Your task to perform on an android device: turn on data saver in the chrome app Image 0: 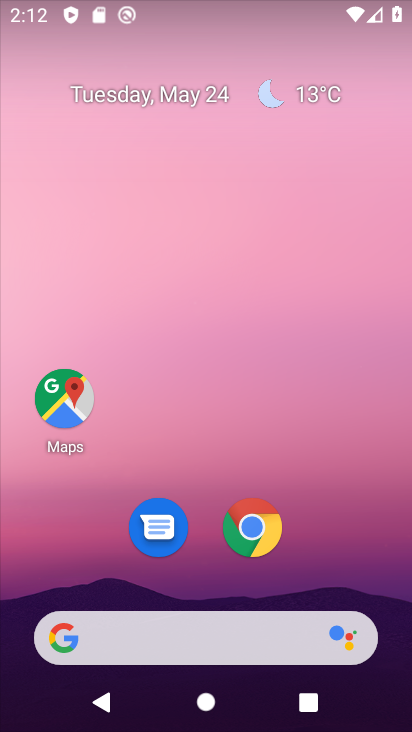
Step 0: click (246, 536)
Your task to perform on an android device: turn on data saver in the chrome app Image 1: 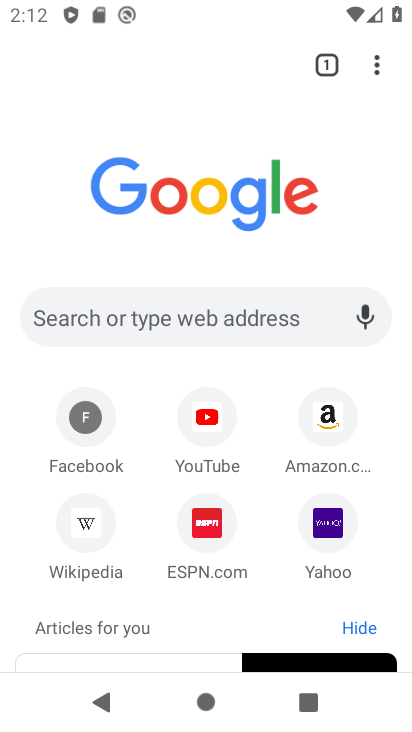
Step 1: click (369, 59)
Your task to perform on an android device: turn on data saver in the chrome app Image 2: 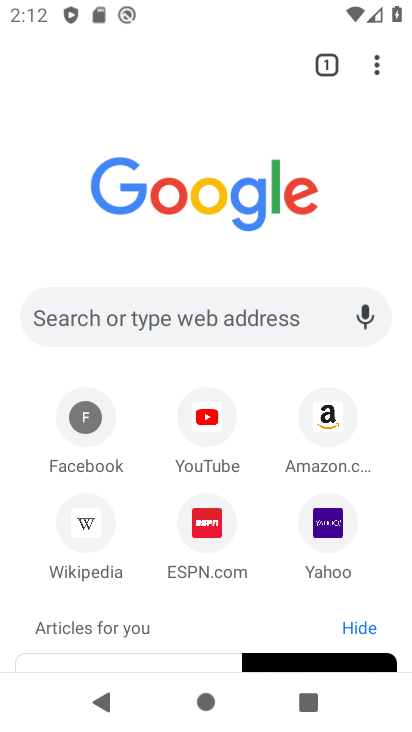
Step 2: click (369, 59)
Your task to perform on an android device: turn on data saver in the chrome app Image 3: 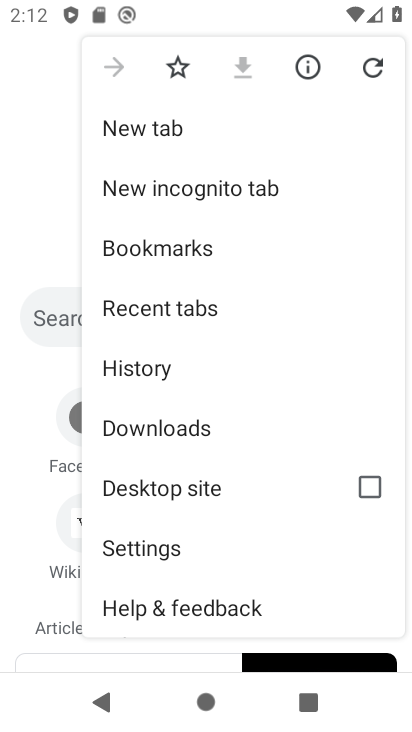
Step 3: click (176, 549)
Your task to perform on an android device: turn on data saver in the chrome app Image 4: 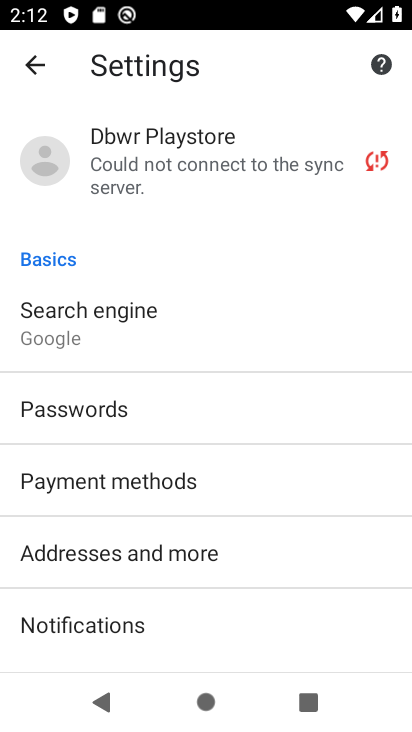
Step 4: drag from (158, 620) to (238, 361)
Your task to perform on an android device: turn on data saver in the chrome app Image 5: 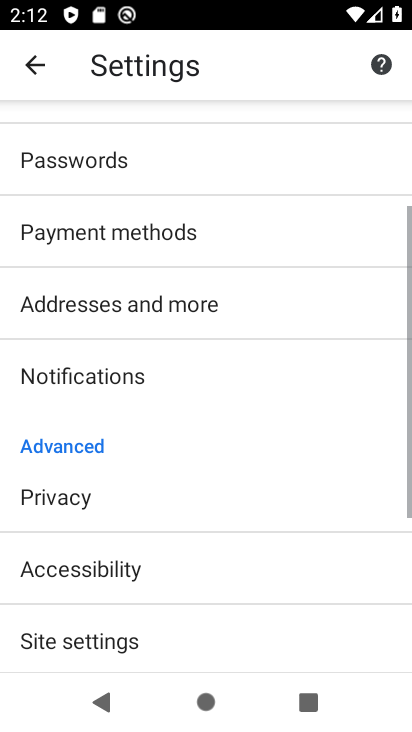
Step 5: drag from (199, 590) to (240, 328)
Your task to perform on an android device: turn on data saver in the chrome app Image 6: 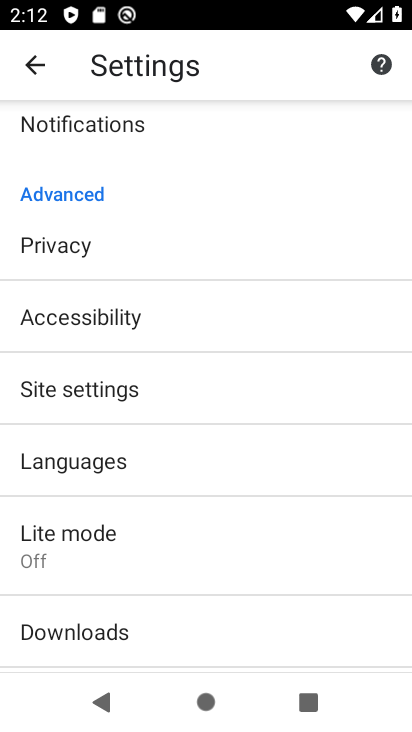
Step 6: click (152, 543)
Your task to perform on an android device: turn on data saver in the chrome app Image 7: 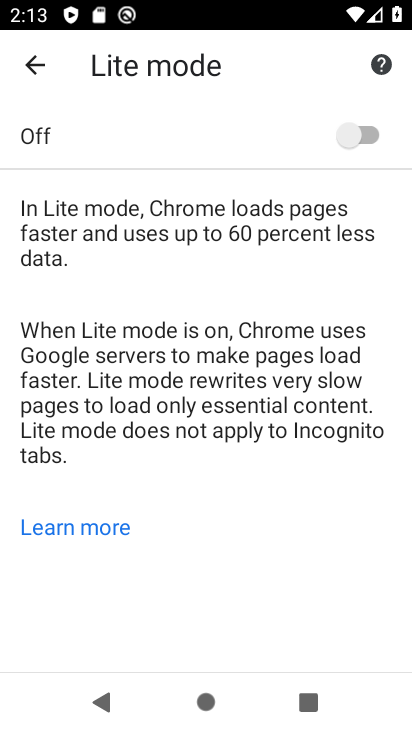
Step 7: click (351, 142)
Your task to perform on an android device: turn on data saver in the chrome app Image 8: 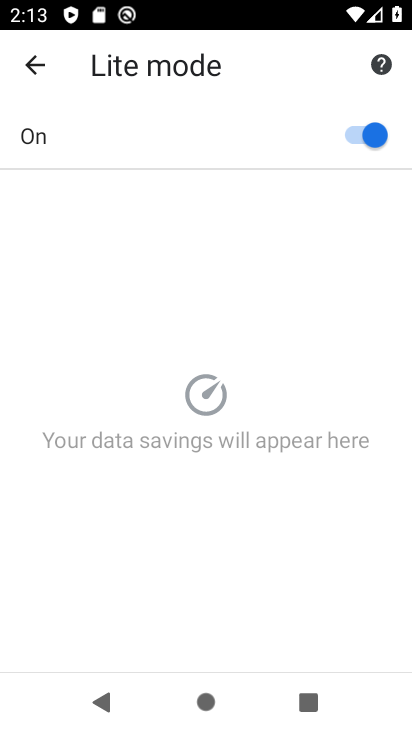
Step 8: task complete